Your task to perform on an android device: install app "Fetch Rewards" Image 0: 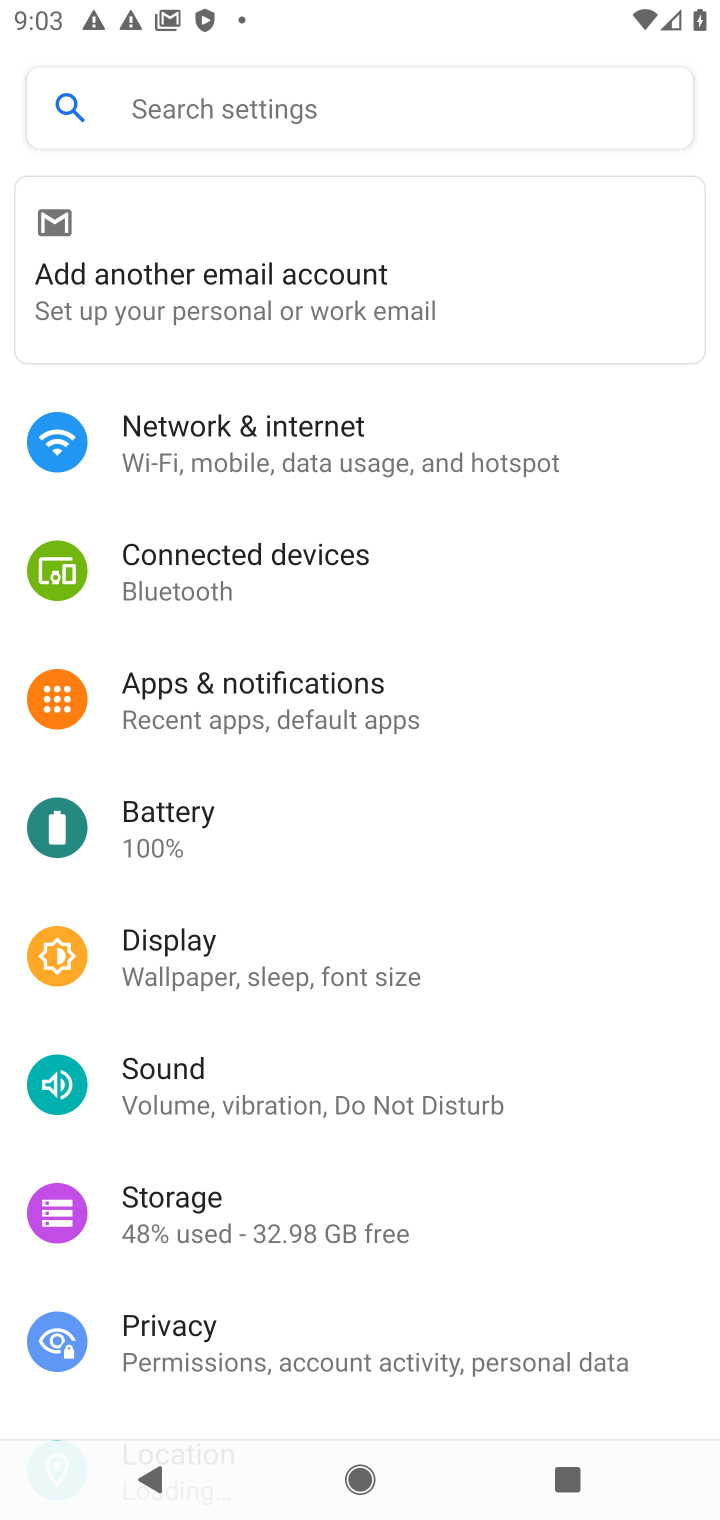
Step 0: press home button
Your task to perform on an android device: install app "Fetch Rewards" Image 1: 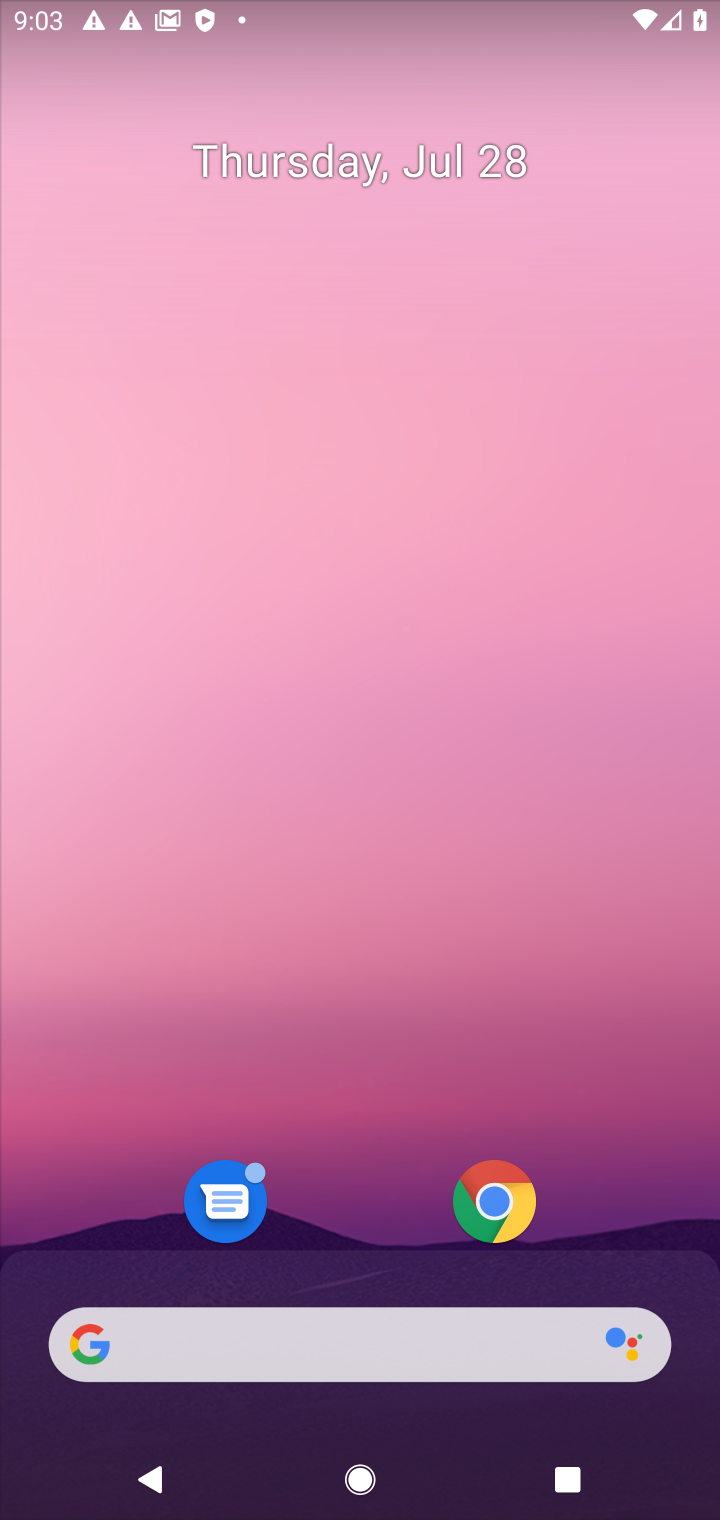
Step 1: click (389, 1389)
Your task to perform on an android device: install app "Fetch Rewards" Image 2: 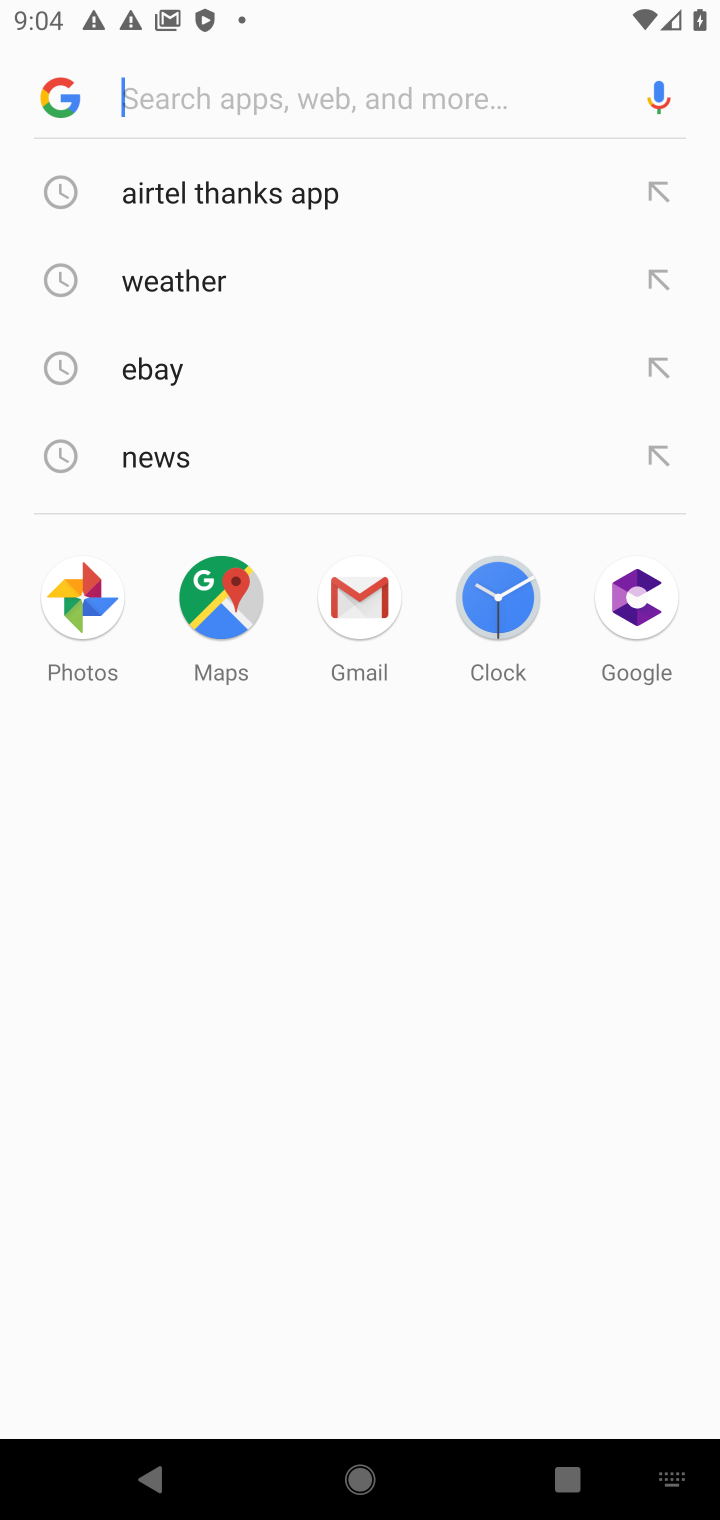
Step 2: type "fetch  reward"
Your task to perform on an android device: install app "Fetch Rewards" Image 3: 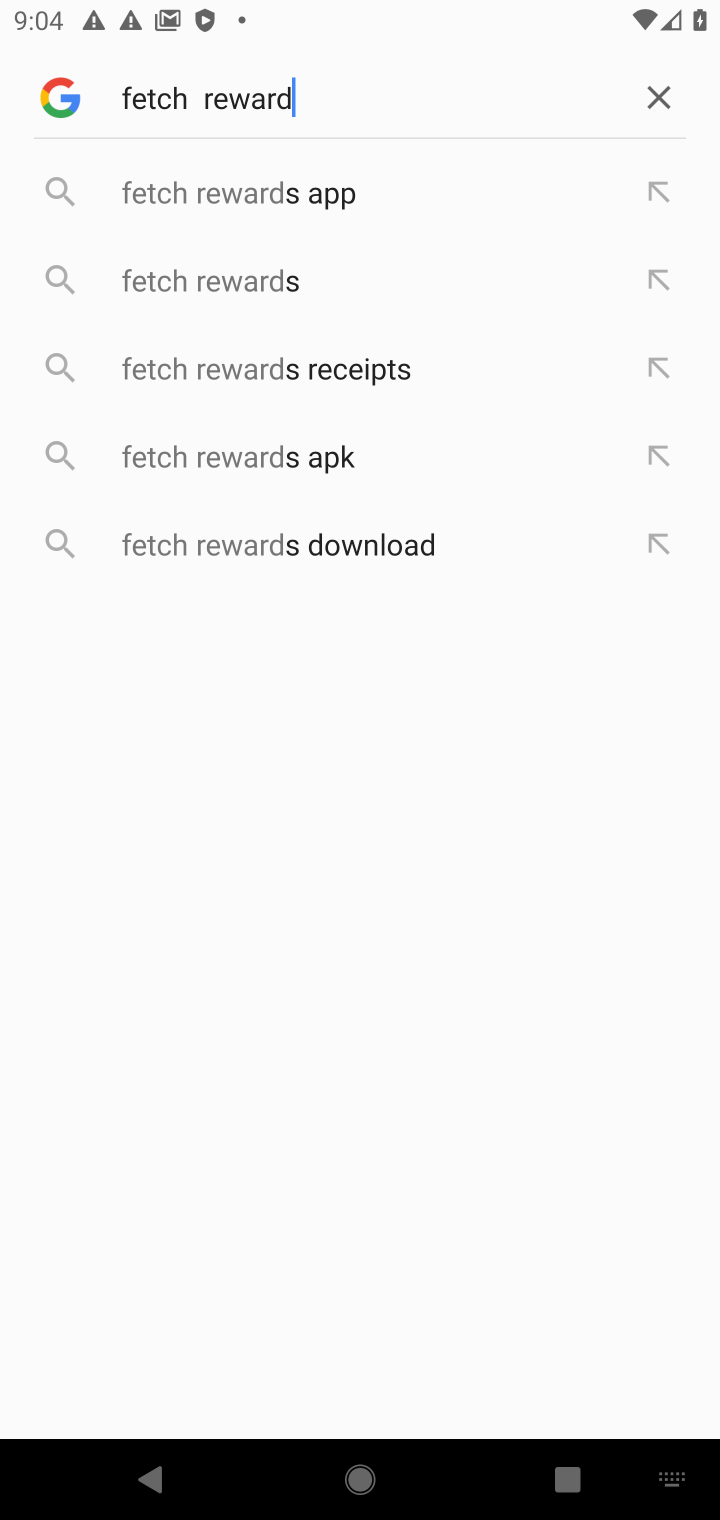
Step 3: click (226, 200)
Your task to perform on an android device: install app "Fetch Rewards" Image 4: 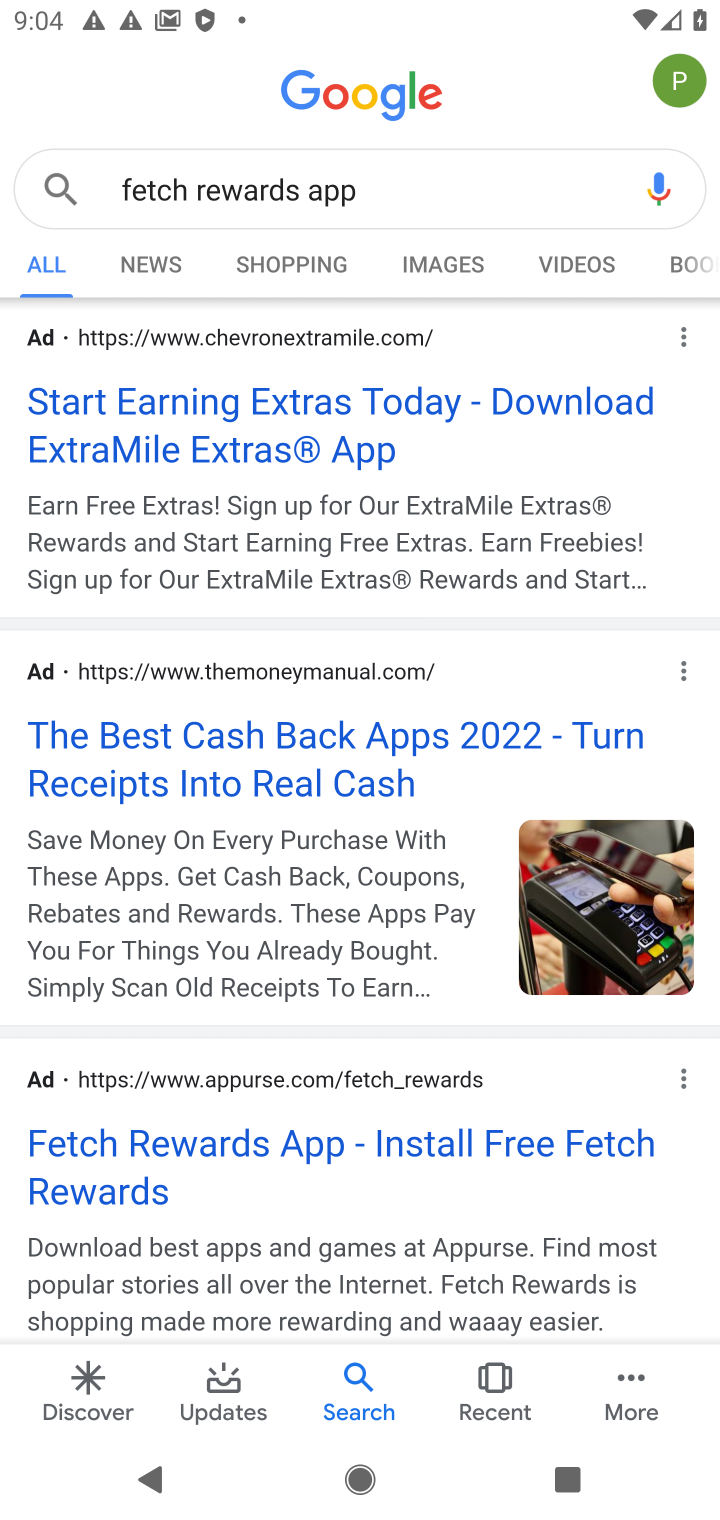
Step 4: task complete